Your task to perform on an android device: turn notification dots on Image 0: 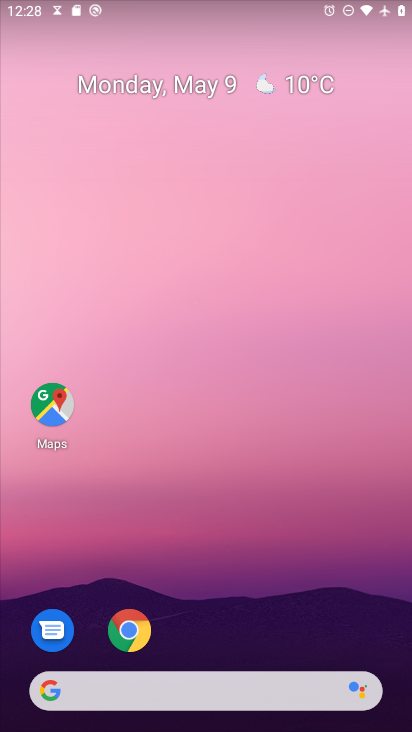
Step 0: drag from (229, 686) to (322, 136)
Your task to perform on an android device: turn notification dots on Image 1: 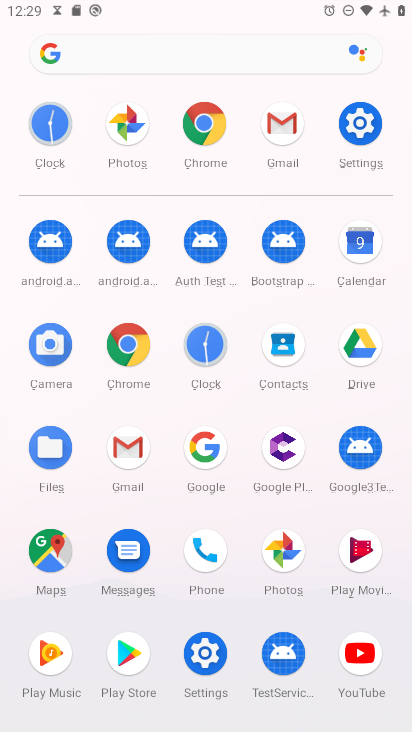
Step 1: click (358, 138)
Your task to perform on an android device: turn notification dots on Image 2: 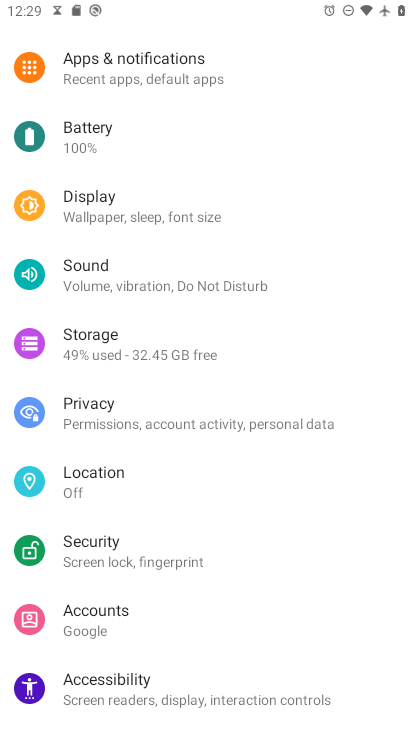
Step 2: click (203, 71)
Your task to perform on an android device: turn notification dots on Image 3: 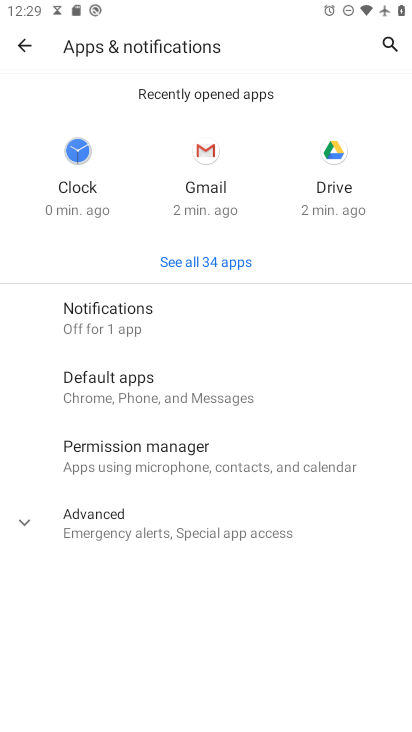
Step 3: click (130, 317)
Your task to perform on an android device: turn notification dots on Image 4: 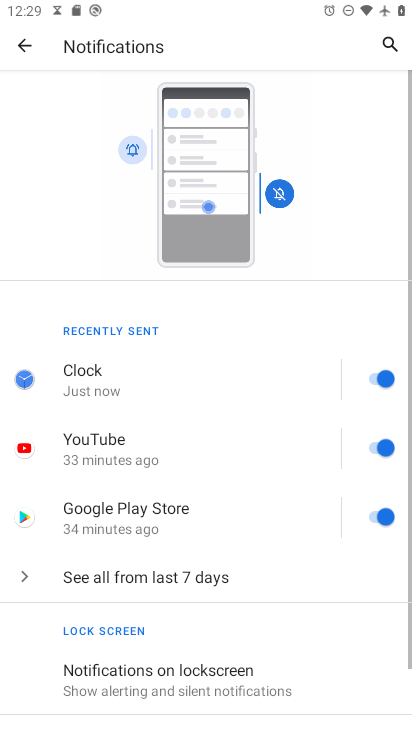
Step 4: drag from (275, 597) to (363, 183)
Your task to perform on an android device: turn notification dots on Image 5: 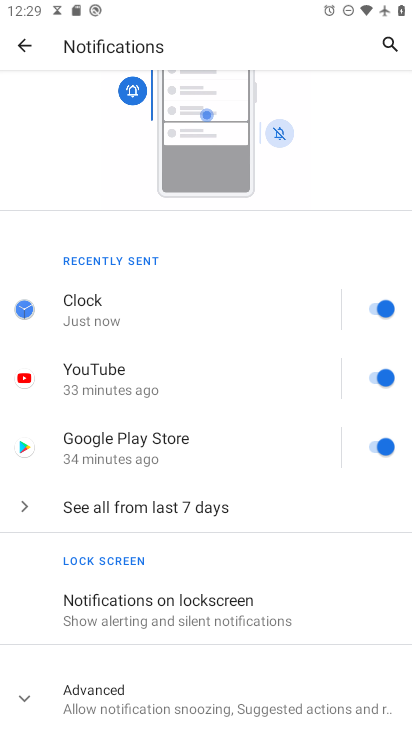
Step 5: click (176, 669)
Your task to perform on an android device: turn notification dots on Image 6: 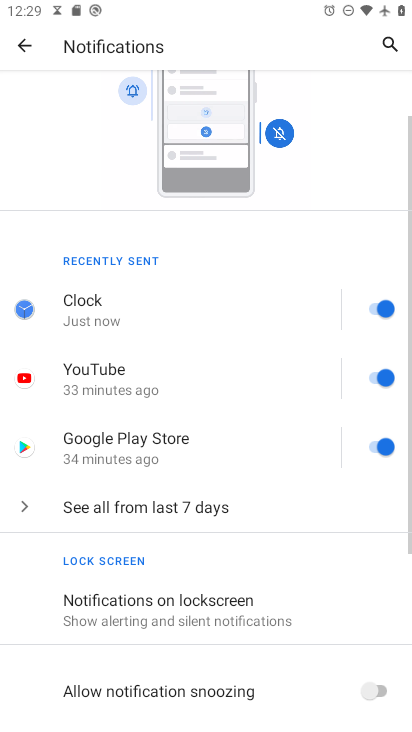
Step 6: drag from (204, 619) to (278, 484)
Your task to perform on an android device: turn notification dots on Image 7: 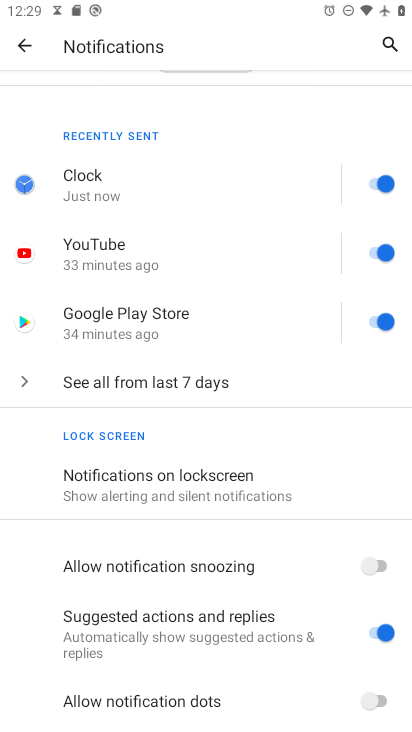
Step 7: drag from (207, 645) to (298, 471)
Your task to perform on an android device: turn notification dots on Image 8: 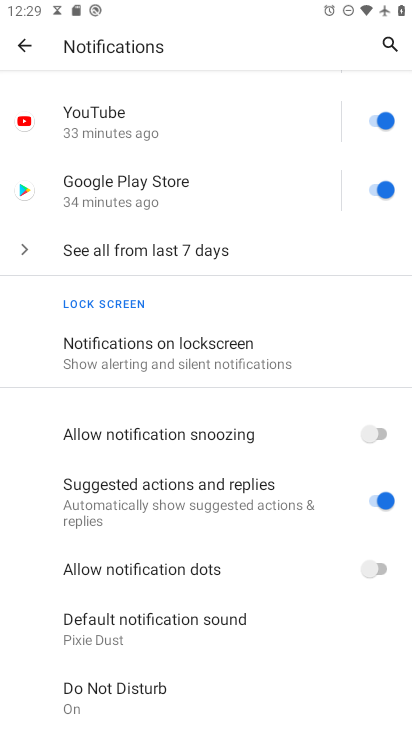
Step 8: click (384, 567)
Your task to perform on an android device: turn notification dots on Image 9: 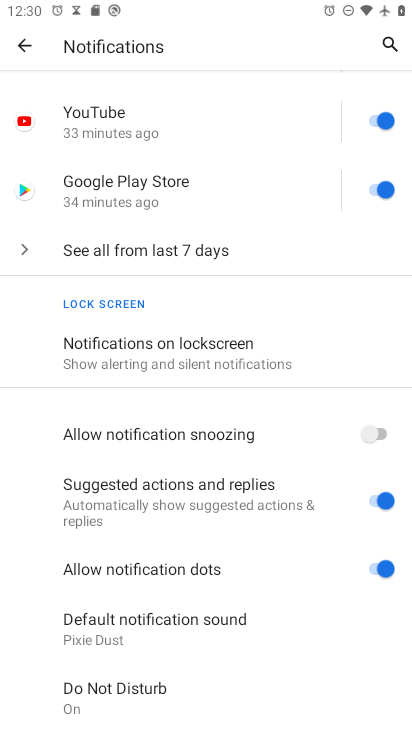
Step 9: task complete